Your task to perform on an android device: Open CNN.com Image 0: 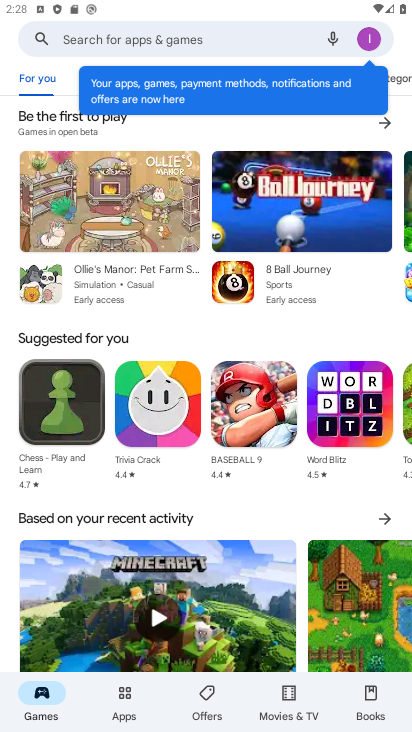
Step 0: press back button
Your task to perform on an android device: Open CNN.com Image 1: 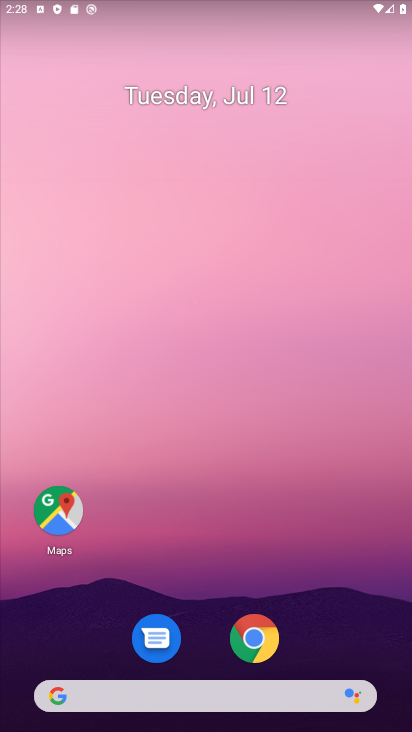
Step 1: click (251, 632)
Your task to perform on an android device: Open CNN.com Image 2: 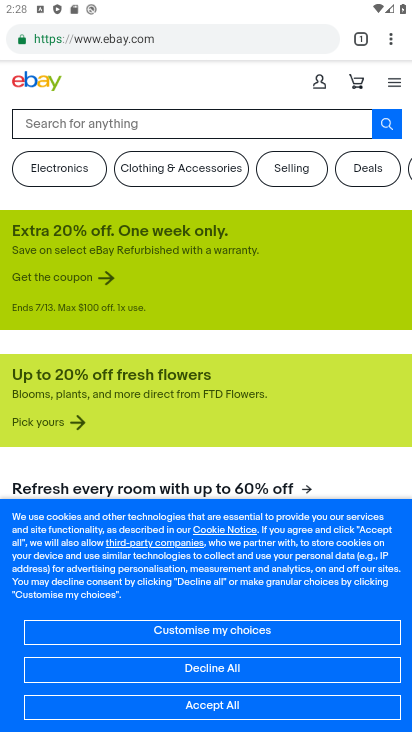
Step 2: click (358, 37)
Your task to perform on an android device: Open CNN.com Image 3: 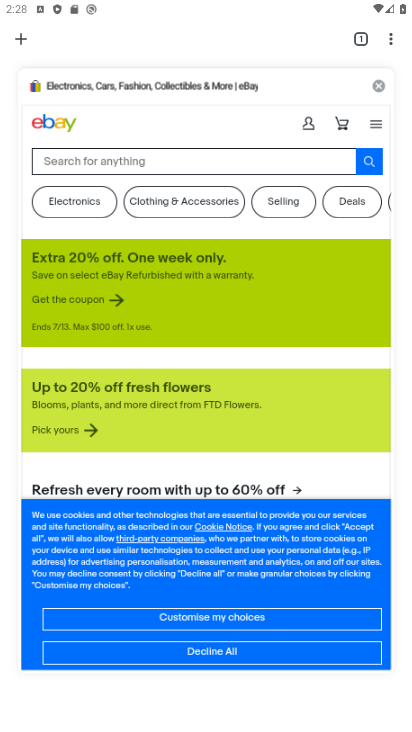
Step 3: click (18, 34)
Your task to perform on an android device: Open CNN.com Image 4: 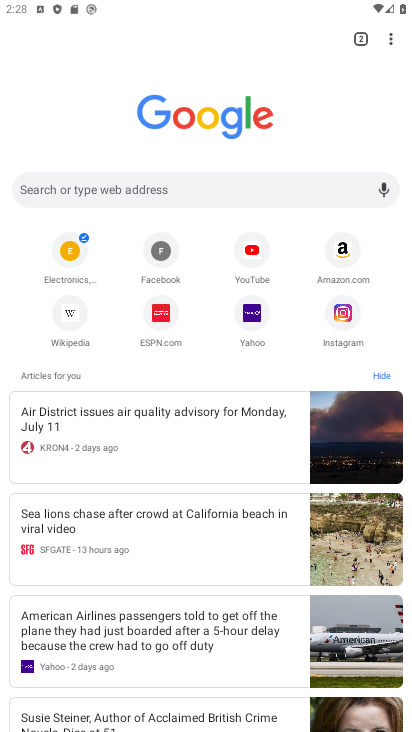
Step 4: click (97, 190)
Your task to perform on an android device: Open CNN.com Image 5: 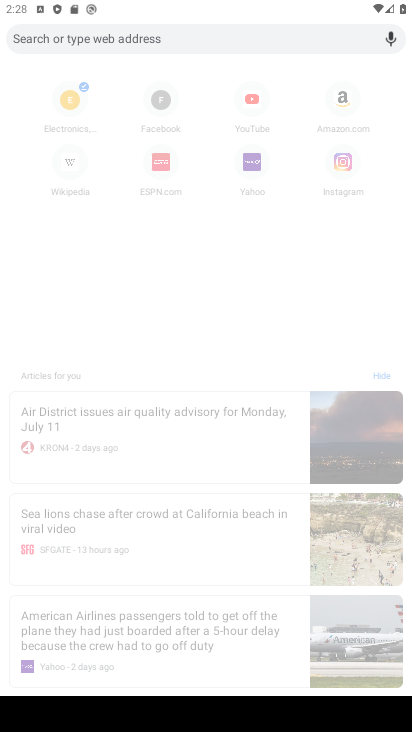
Step 5: type "cnn.com"
Your task to perform on an android device: Open CNN.com Image 6: 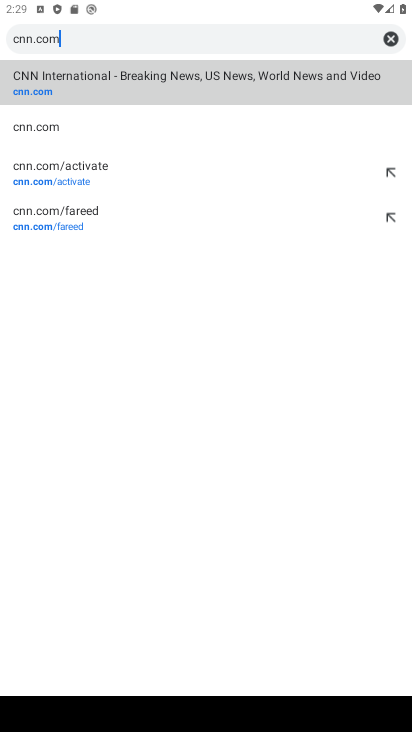
Step 6: click (68, 82)
Your task to perform on an android device: Open CNN.com Image 7: 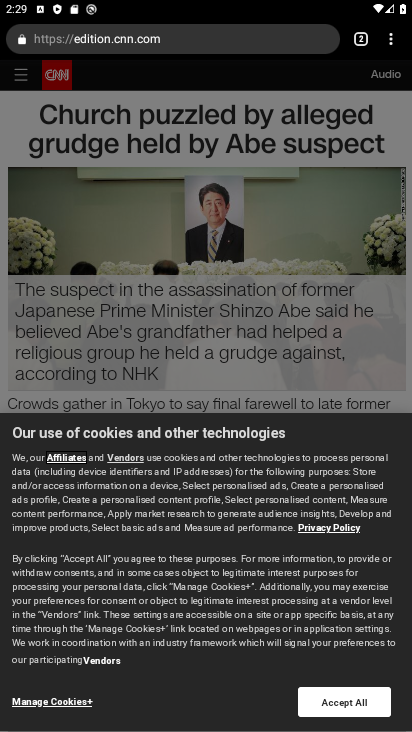
Step 7: task complete